Your task to perform on an android device: What's the news this afternoon? Image 0: 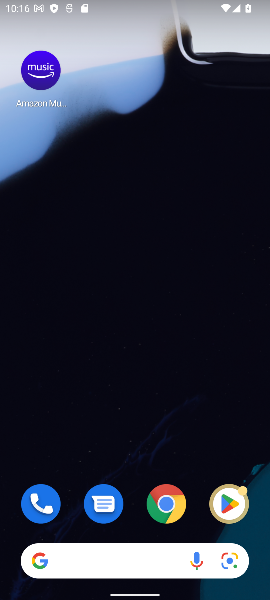
Step 0: click (168, 501)
Your task to perform on an android device: What's the news this afternoon? Image 1: 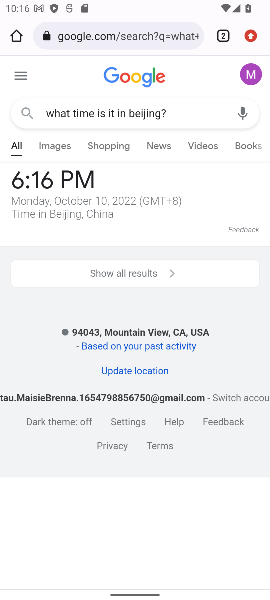
Step 1: click (124, 24)
Your task to perform on an android device: What's the news this afternoon? Image 2: 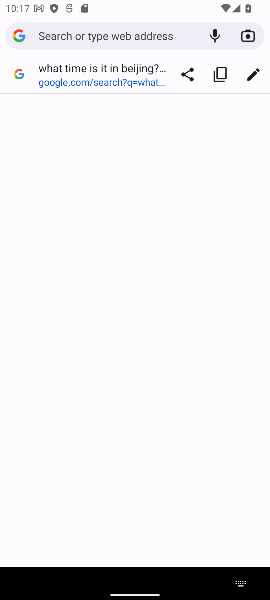
Step 2: type "news this afternoon?"
Your task to perform on an android device: What's the news this afternoon? Image 3: 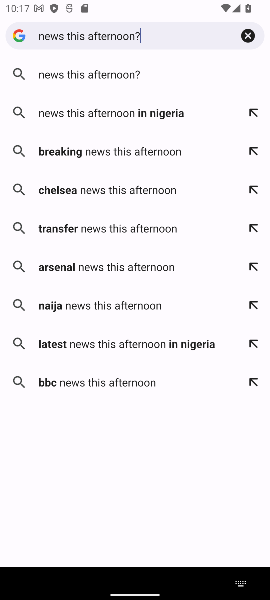
Step 3: click (66, 77)
Your task to perform on an android device: What's the news this afternoon? Image 4: 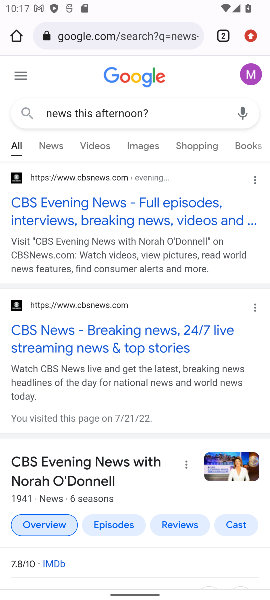
Step 4: click (70, 213)
Your task to perform on an android device: What's the news this afternoon? Image 5: 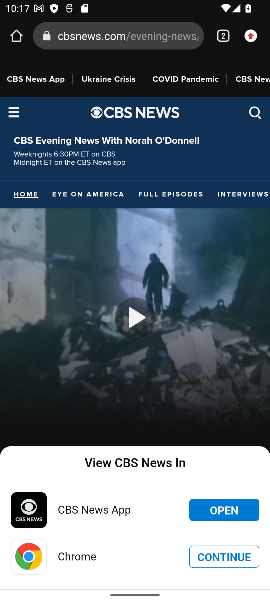
Step 5: drag from (177, 491) to (178, 149)
Your task to perform on an android device: What's the news this afternoon? Image 6: 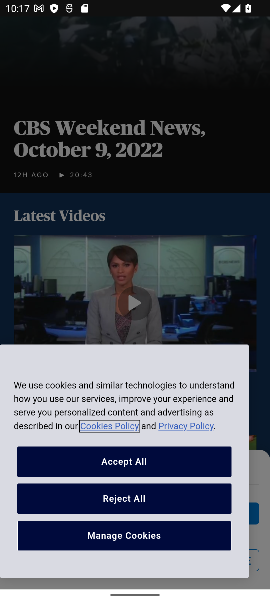
Step 6: click (109, 465)
Your task to perform on an android device: What's the news this afternoon? Image 7: 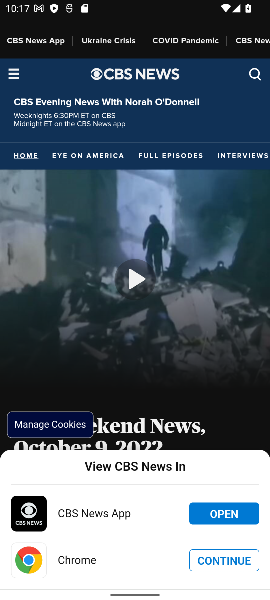
Step 7: drag from (168, 405) to (154, 102)
Your task to perform on an android device: What's the news this afternoon? Image 8: 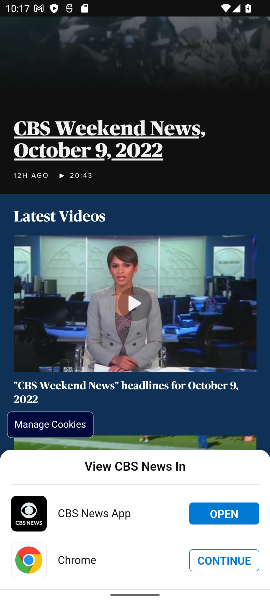
Step 8: click (83, 128)
Your task to perform on an android device: What's the news this afternoon? Image 9: 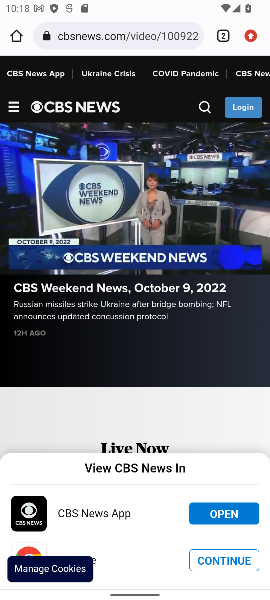
Step 9: task complete